Your task to perform on an android device: Search for Italian restaurants on Maps Image 0: 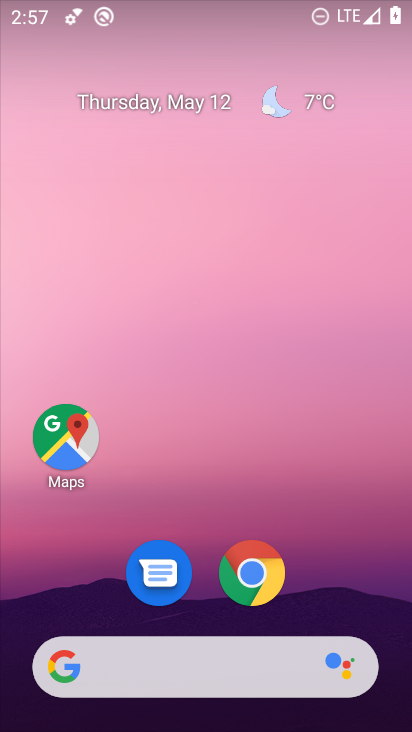
Step 0: drag from (365, 675) to (181, 176)
Your task to perform on an android device: Search for Italian restaurants on Maps Image 1: 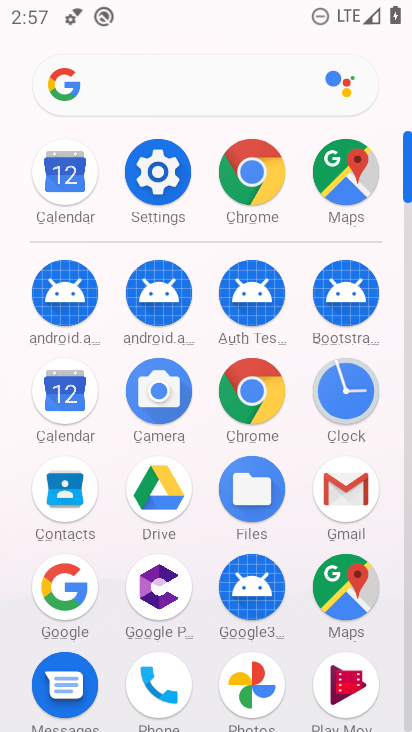
Step 1: click (331, 171)
Your task to perform on an android device: Search for Italian restaurants on Maps Image 2: 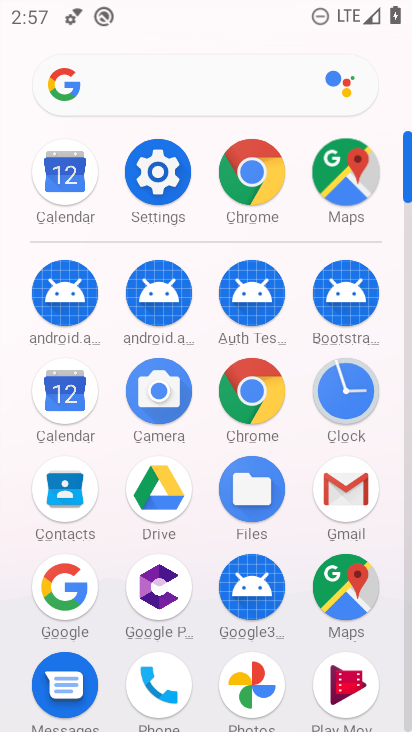
Step 2: click (343, 167)
Your task to perform on an android device: Search for Italian restaurants on Maps Image 3: 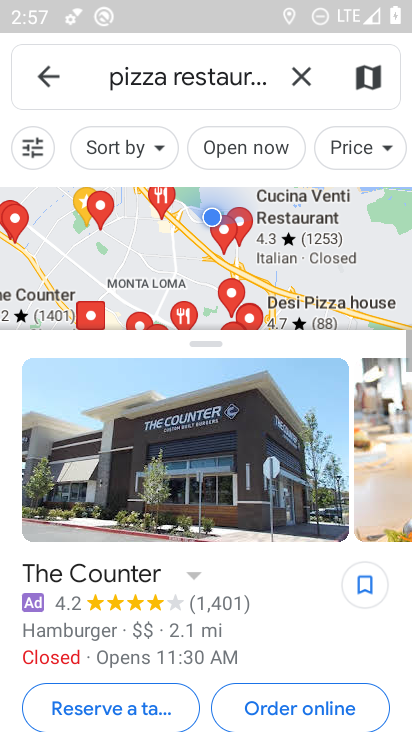
Step 3: click (305, 61)
Your task to perform on an android device: Search for Italian restaurants on Maps Image 4: 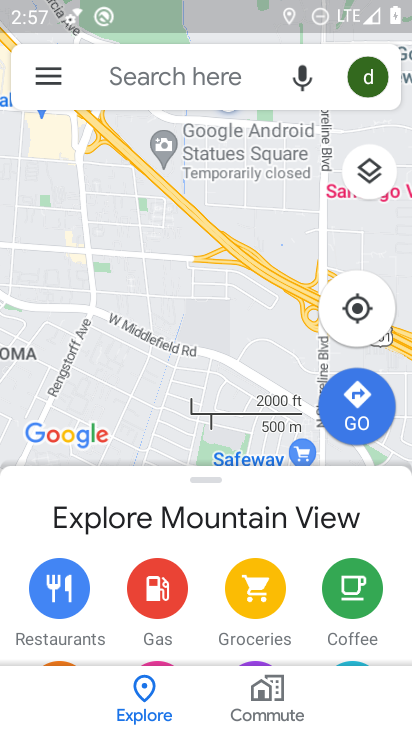
Step 4: click (121, 74)
Your task to perform on an android device: Search for Italian restaurants on Maps Image 5: 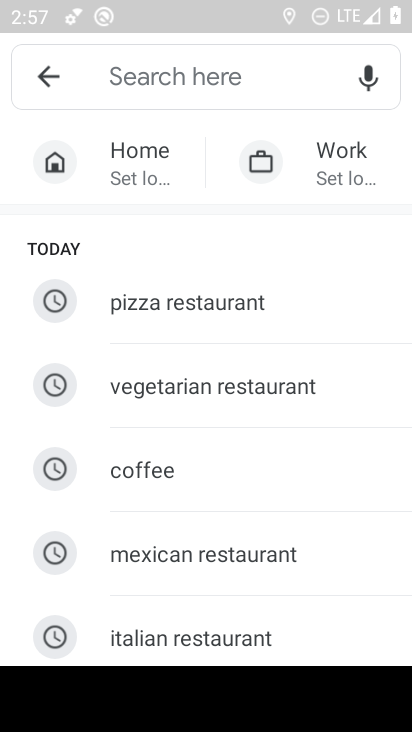
Step 5: drag from (267, 540) to (193, 224)
Your task to perform on an android device: Search for Italian restaurants on Maps Image 6: 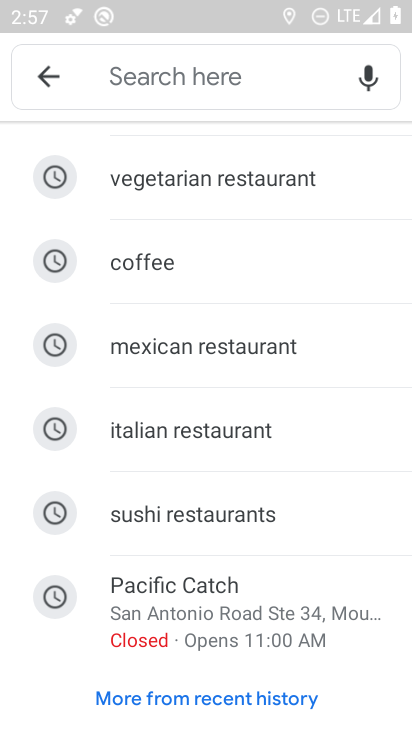
Step 6: click (171, 433)
Your task to perform on an android device: Search for Italian restaurants on Maps Image 7: 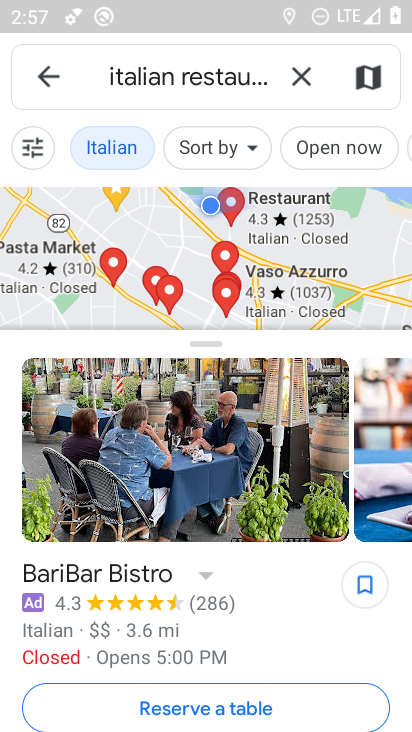
Step 7: task complete